Your task to perform on an android device: move an email to a new category in the gmail app Image 0: 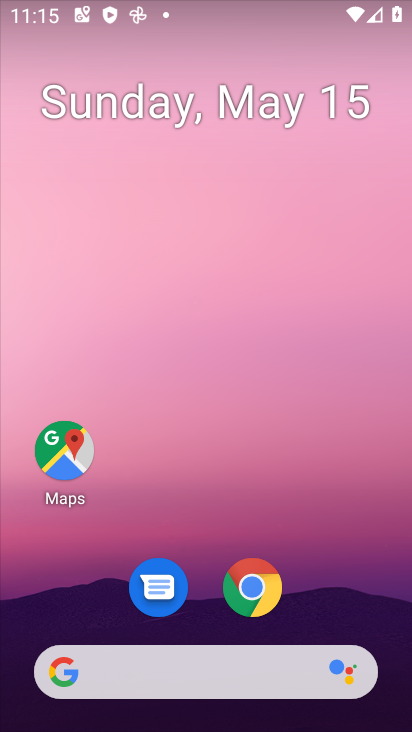
Step 0: drag from (372, 518) to (291, 128)
Your task to perform on an android device: move an email to a new category in the gmail app Image 1: 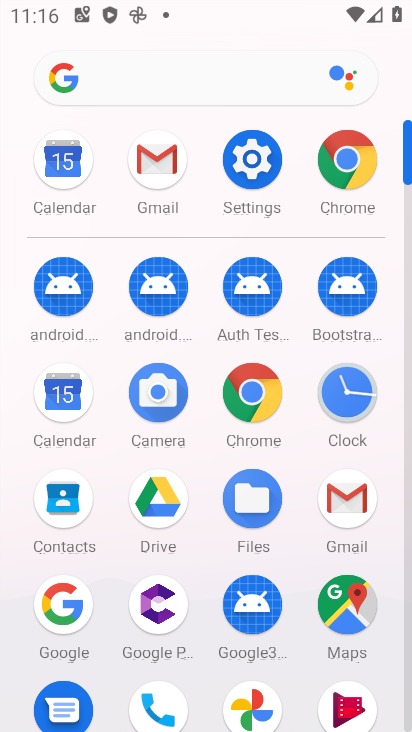
Step 1: click (357, 493)
Your task to perform on an android device: move an email to a new category in the gmail app Image 2: 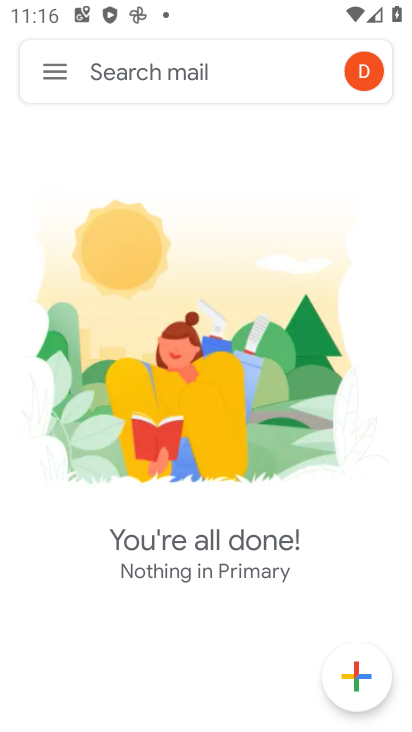
Step 2: task complete